Your task to perform on an android device: open device folders in google photos Image 0: 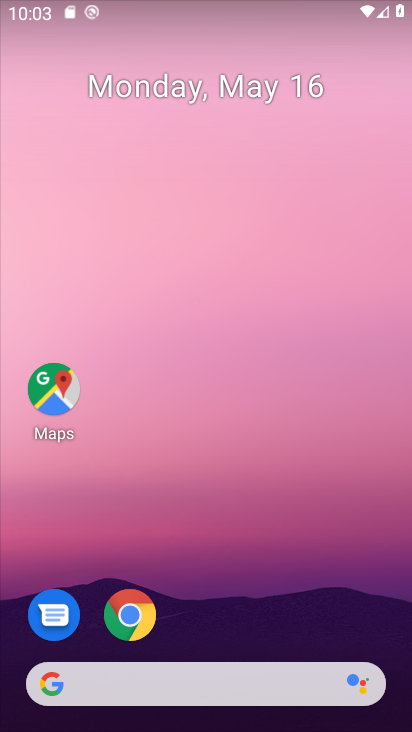
Step 0: drag from (243, 582) to (178, 17)
Your task to perform on an android device: open device folders in google photos Image 1: 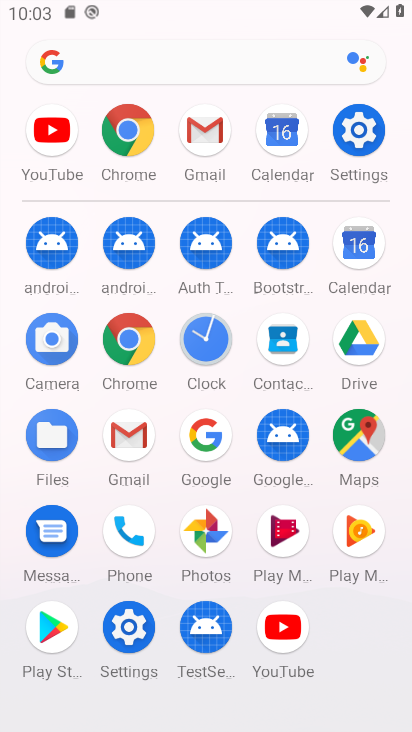
Step 1: drag from (7, 533) to (6, 330)
Your task to perform on an android device: open device folders in google photos Image 2: 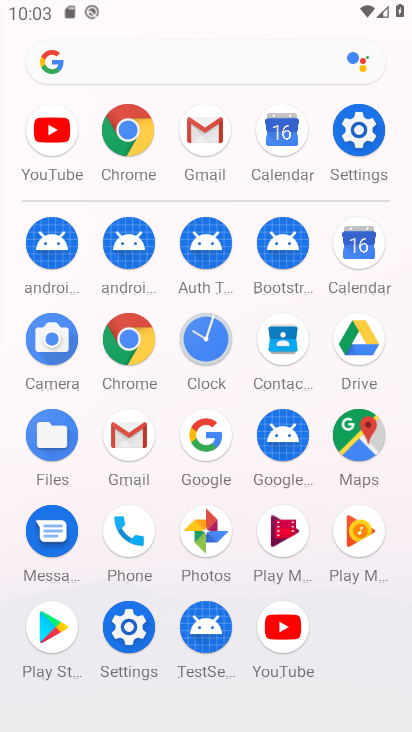
Step 2: click (206, 530)
Your task to perform on an android device: open device folders in google photos Image 3: 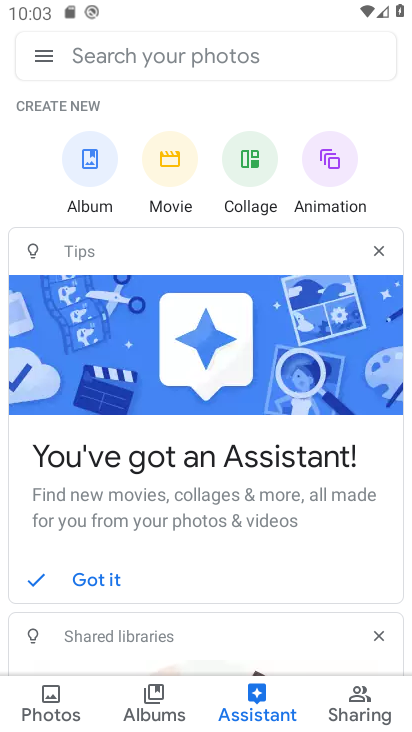
Step 3: click (29, 57)
Your task to perform on an android device: open device folders in google photos Image 4: 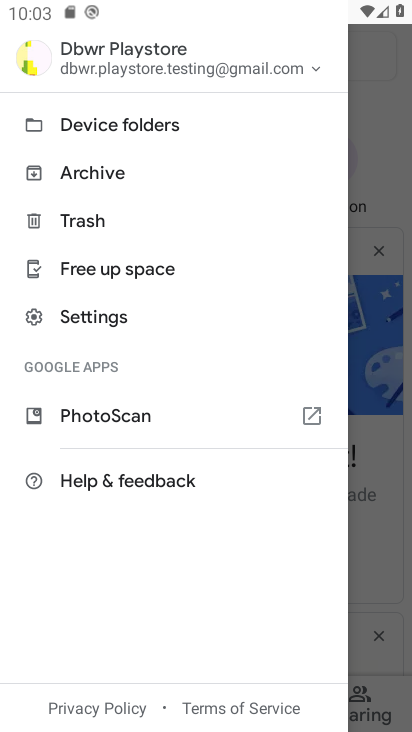
Step 4: click (94, 126)
Your task to perform on an android device: open device folders in google photos Image 5: 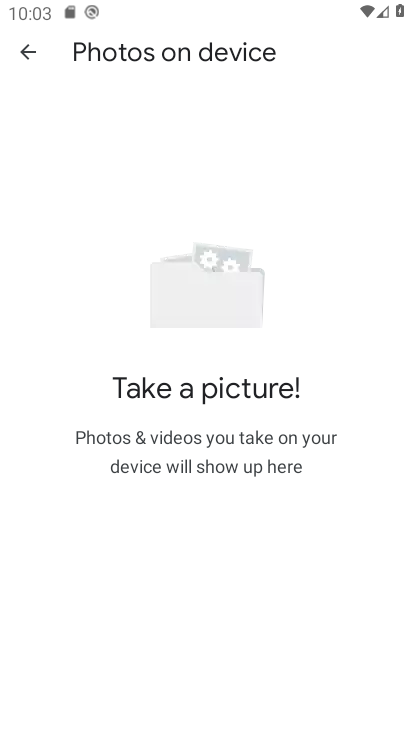
Step 5: task complete